Your task to perform on an android device: Go to privacy settings Image 0: 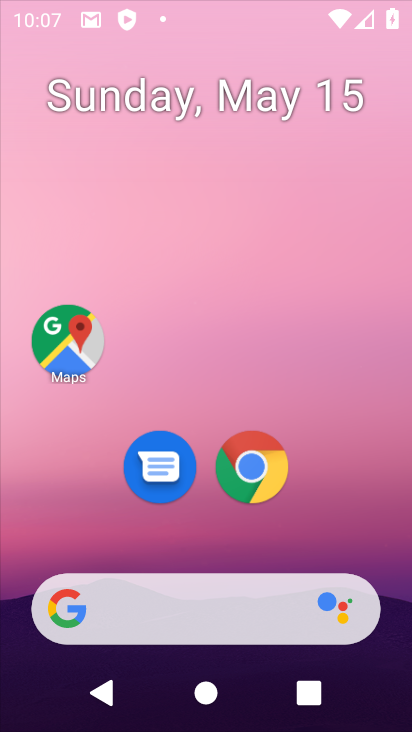
Step 0: click (386, 37)
Your task to perform on an android device: Go to privacy settings Image 1: 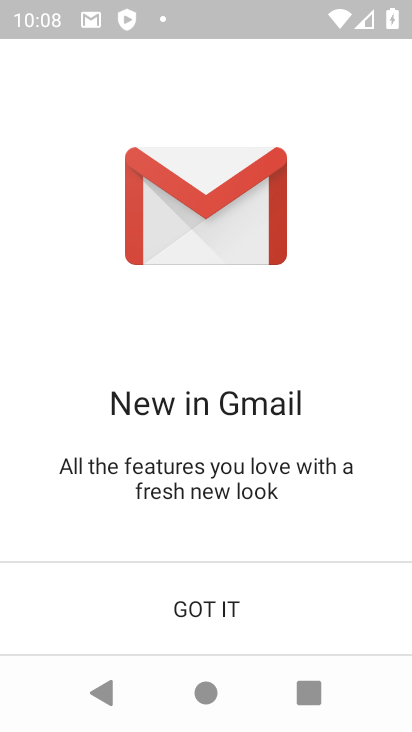
Step 1: click (211, 616)
Your task to perform on an android device: Go to privacy settings Image 2: 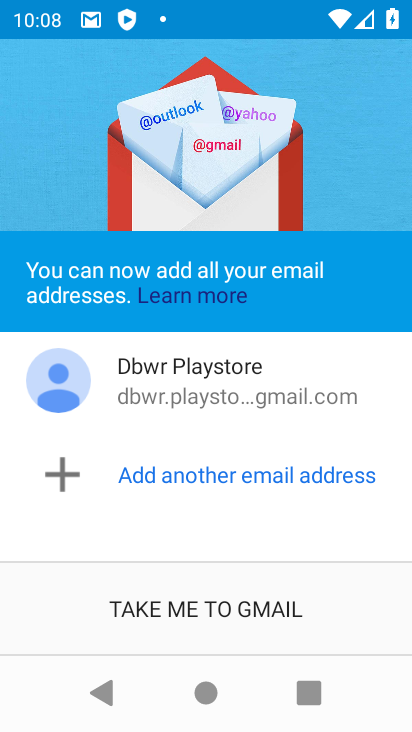
Step 2: click (121, 599)
Your task to perform on an android device: Go to privacy settings Image 3: 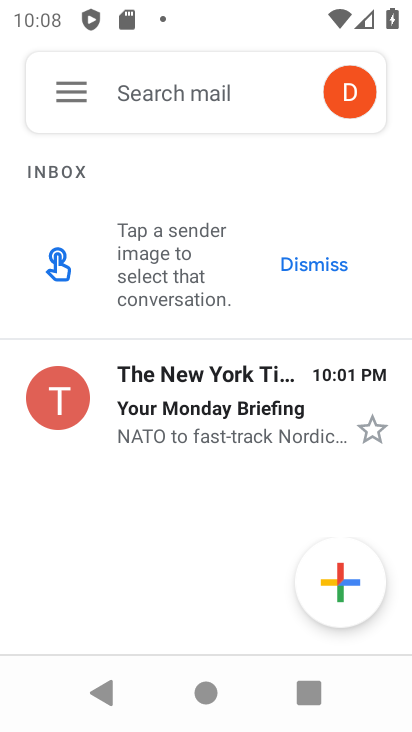
Step 3: click (58, 92)
Your task to perform on an android device: Go to privacy settings Image 4: 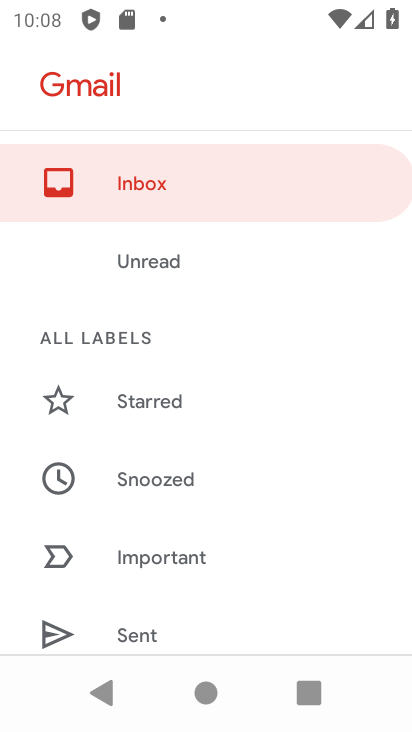
Step 4: press home button
Your task to perform on an android device: Go to privacy settings Image 5: 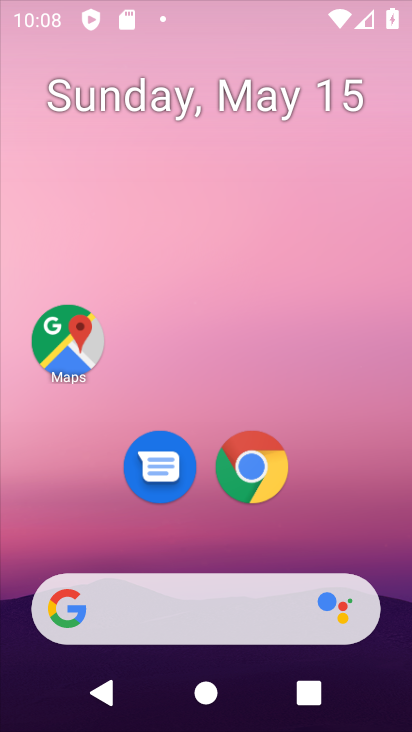
Step 5: click (242, 153)
Your task to perform on an android device: Go to privacy settings Image 6: 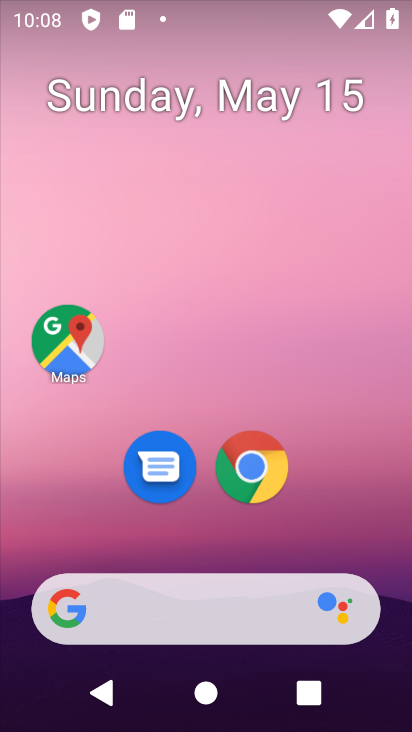
Step 6: drag from (188, 494) to (240, 106)
Your task to perform on an android device: Go to privacy settings Image 7: 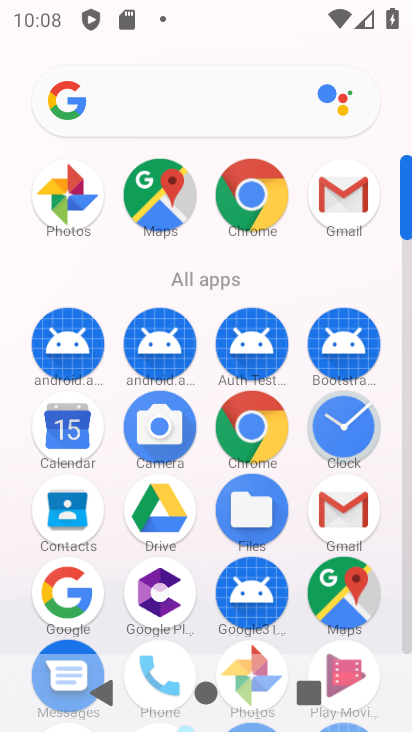
Step 7: drag from (198, 635) to (184, 308)
Your task to perform on an android device: Go to privacy settings Image 8: 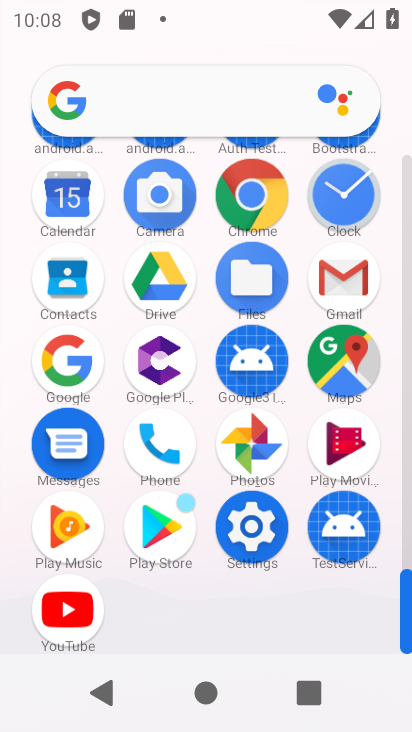
Step 8: click (256, 536)
Your task to perform on an android device: Go to privacy settings Image 9: 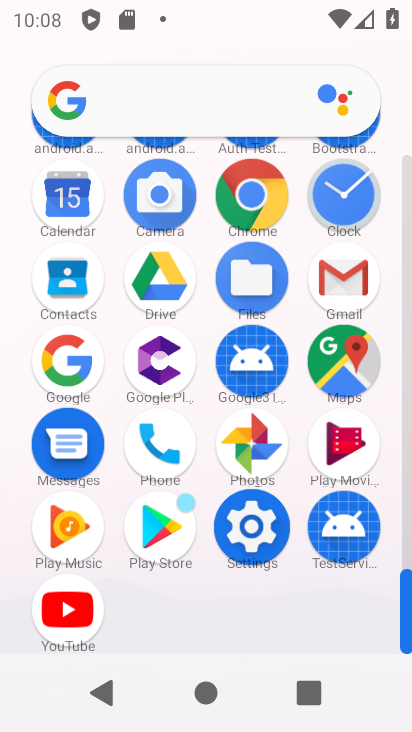
Step 9: click (256, 536)
Your task to perform on an android device: Go to privacy settings Image 10: 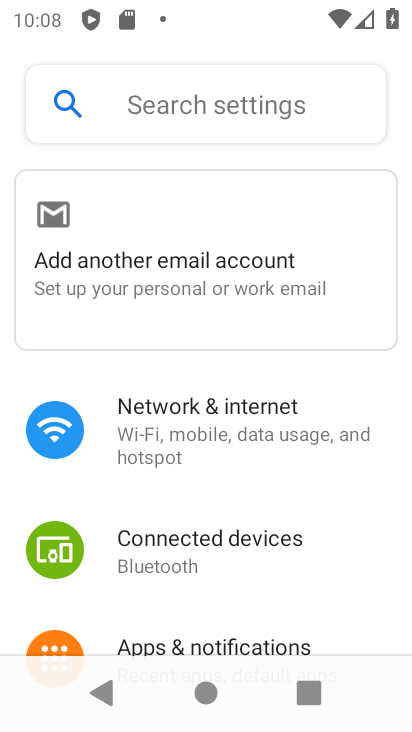
Step 10: drag from (236, 571) to (270, 19)
Your task to perform on an android device: Go to privacy settings Image 11: 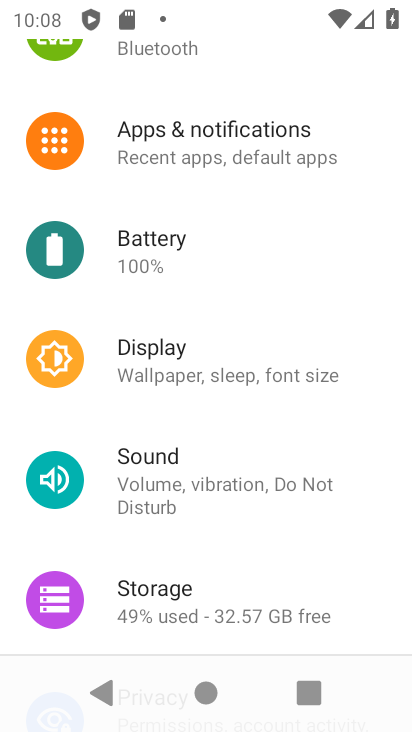
Step 11: drag from (198, 520) to (246, 114)
Your task to perform on an android device: Go to privacy settings Image 12: 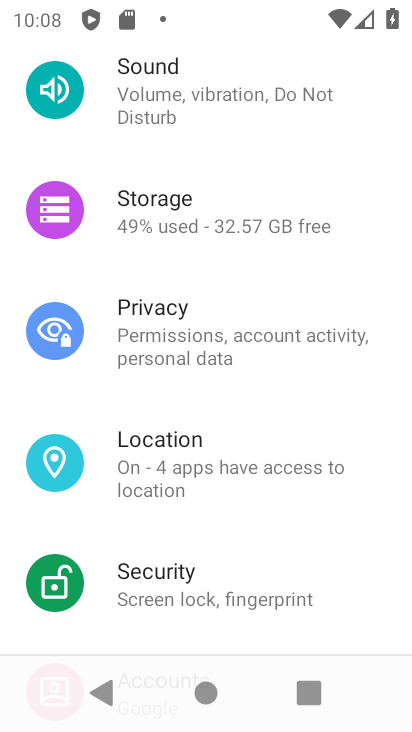
Step 12: click (172, 329)
Your task to perform on an android device: Go to privacy settings Image 13: 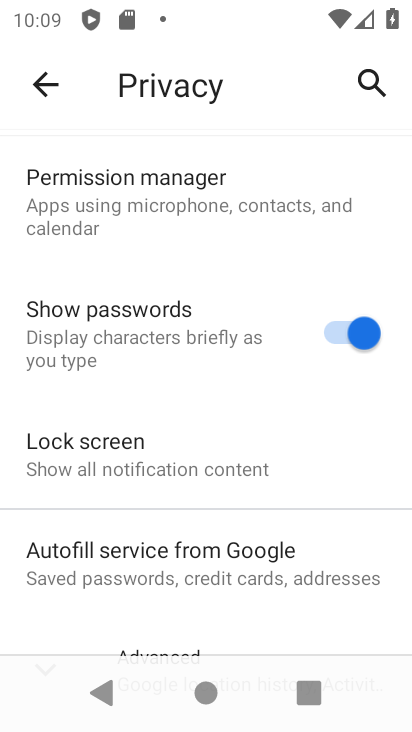
Step 13: task complete